Your task to perform on an android device: Search for hotels in Seattle Image 0: 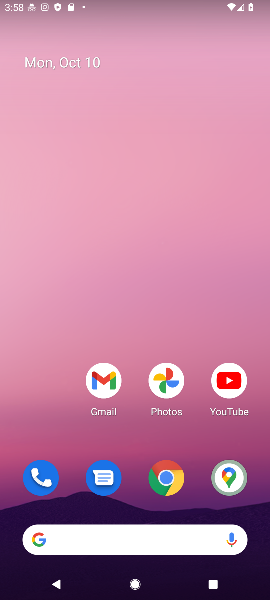
Step 0: click (178, 485)
Your task to perform on an android device: Search for hotels in Seattle Image 1: 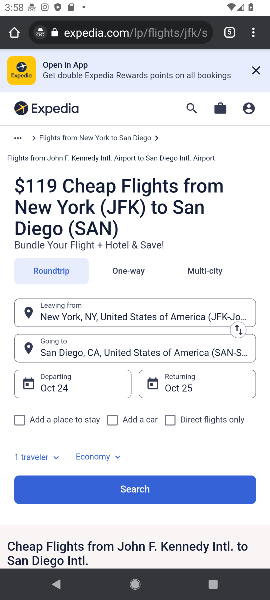
Step 1: click (111, 40)
Your task to perform on an android device: Search for hotels in Seattle Image 2: 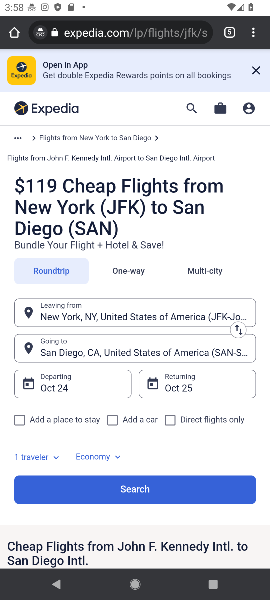
Step 2: click (111, 40)
Your task to perform on an android device: Search for hotels in Seattle Image 3: 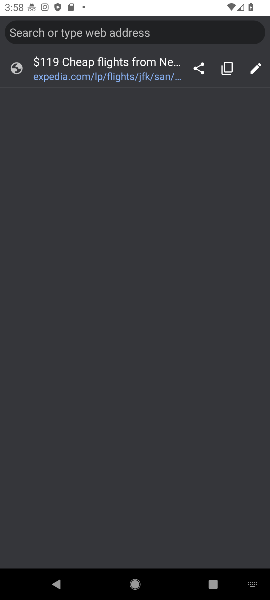
Step 3: type "Search for hotels in Seattle"
Your task to perform on an android device: Search for hotels in Seattle Image 4: 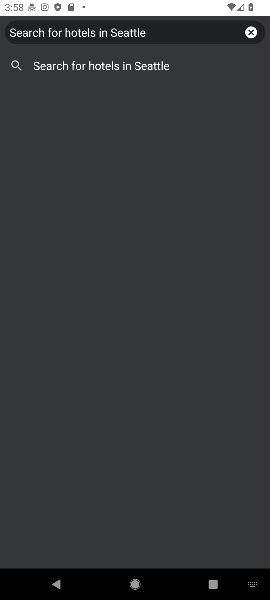
Step 4: click (130, 66)
Your task to perform on an android device: Search for hotels in Seattle Image 5: 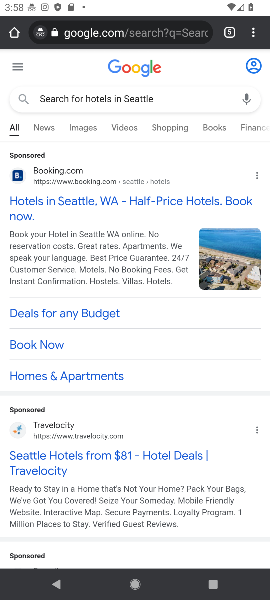
Step 5: click (95, 204)
Your task to perform on an android device: Search for hotels in Seattle Image 6: 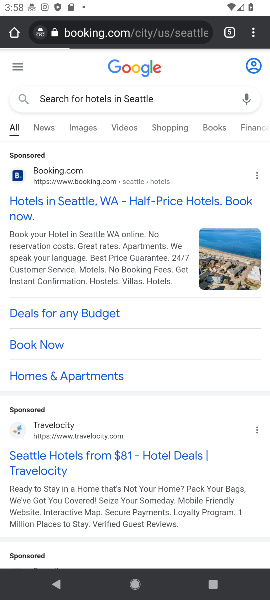
Step 6: click (67, 201)
Your task to perform on an android device: Search for hotels in Seattle Image 7: 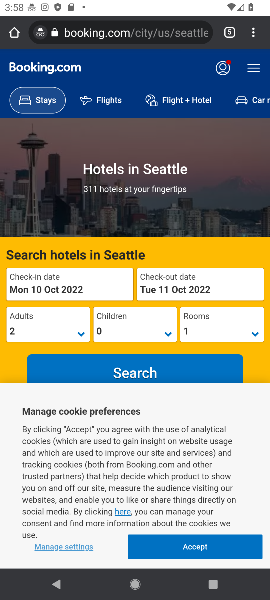
Step 7: task complete